Your task to perform on an android device: Go to settings Image 0: 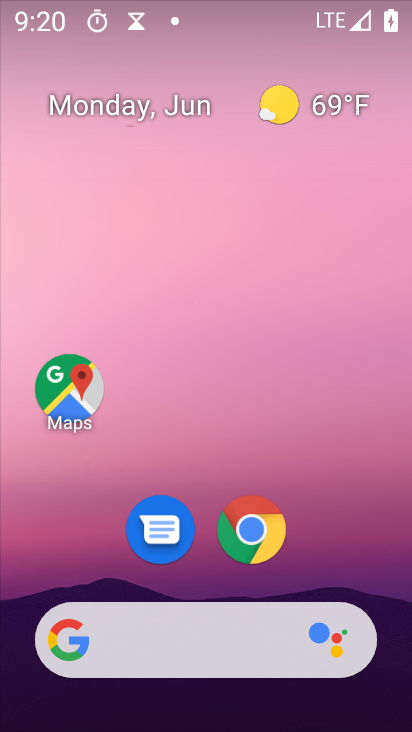
Step 0: drag from (337, 543) to (255, 42)
Your task to perform on an android device: Go to settings Image 1: 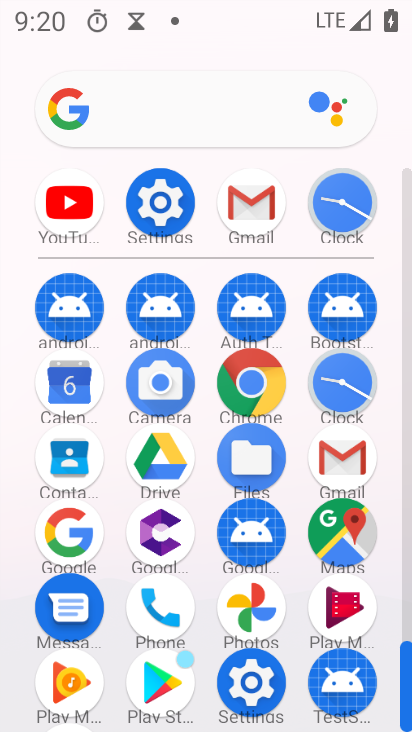
Step 1: click (153, 216)
Your task to perform on an android device: Go to settings Image 2: 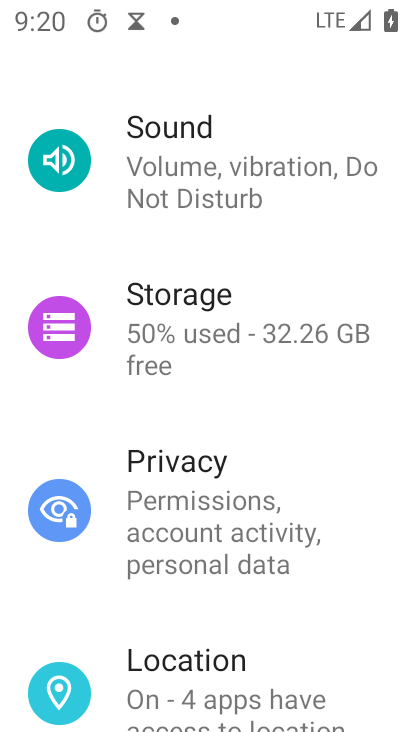
Step 2: task complete